Your task to perform on an android device: What's the weather? Image 0: 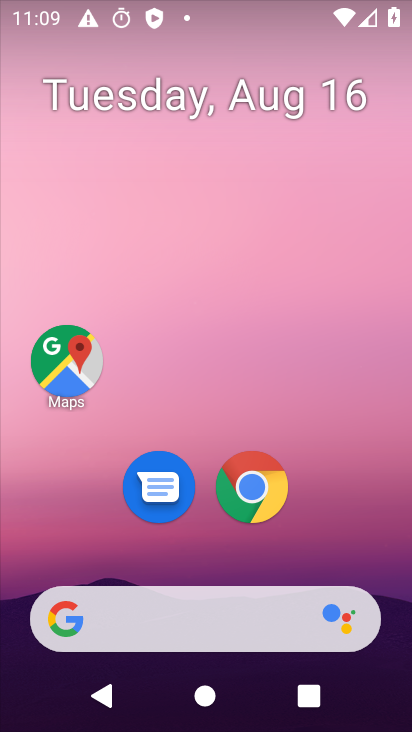
Step 0: click (247, 623)
Your task to perform on an android device: What's the weather? Image 1: 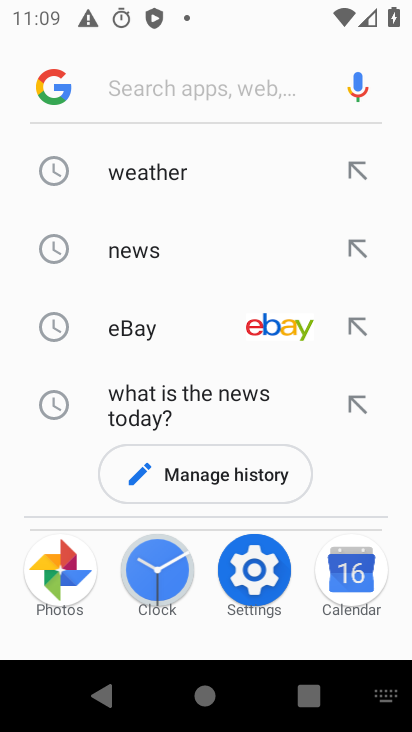
Step 1: click (169, 170)
Your task to perform on an android device: What's the weather? Image 2: 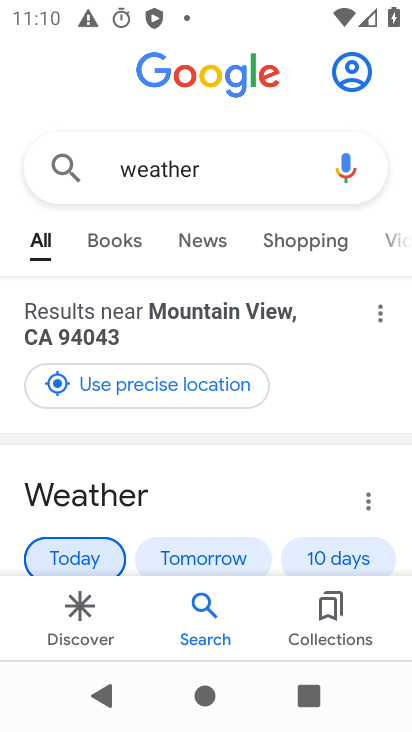
Step 2: task complete